Your task to perform on an android device: Open battery settings Image 0: 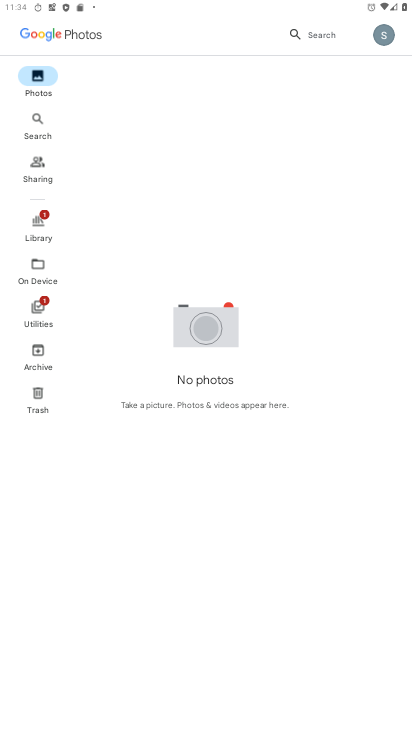
Step 0: press home button
Your task to perform on an android device: Open battery settings Image 1: 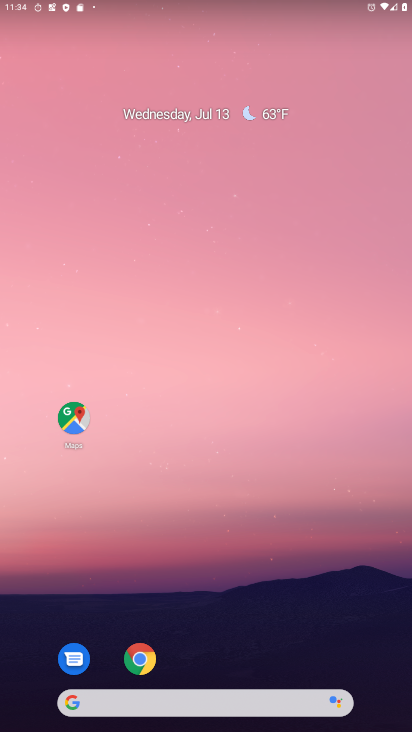
Step 1: drag from (303, 623) to (229, 153)
Your task to perform on an android device: Open battery settings Image 2: 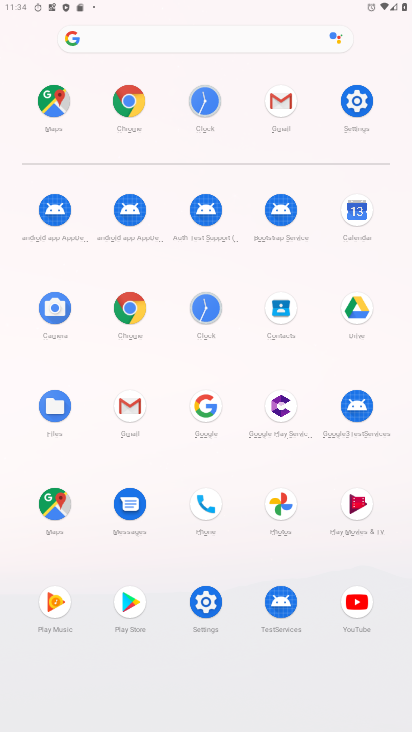
Step 2: click (360, 104)
Your task to perform on an android device: Open battery settings Image 3: 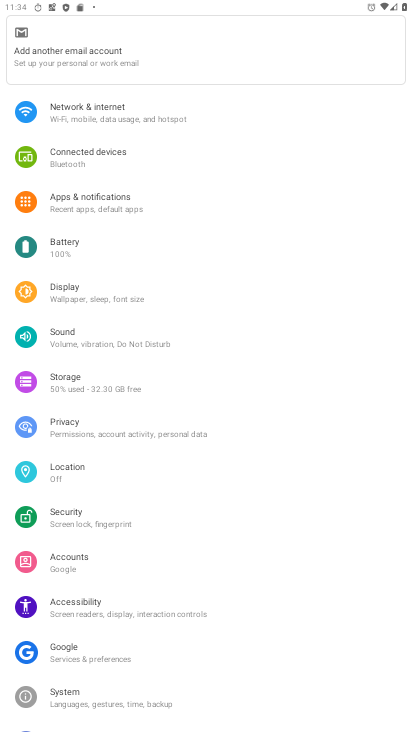
Step 3: click (73, 246)
Your task to perform on an android device: Open battery settings Image 4: 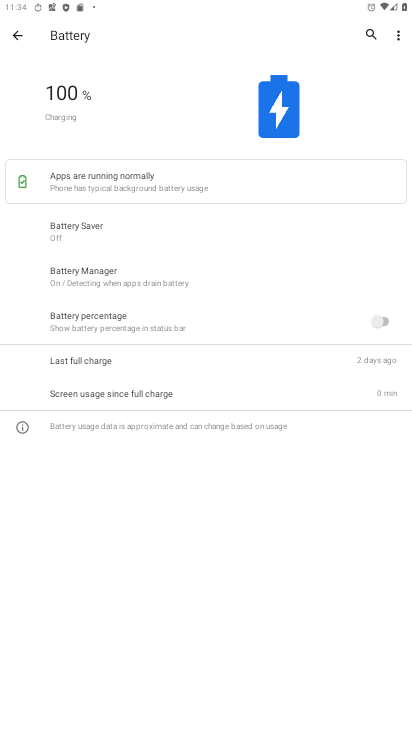
Step 4: task complete